Your task to perform on an android device: open sync settings in chrome Image 0: 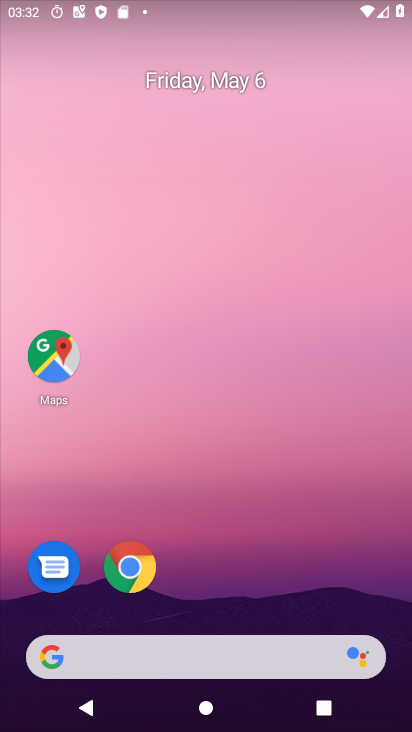
Step 0: click (124, 564)
Your task to perform on an android device: open sync settings in chrome Image 1: 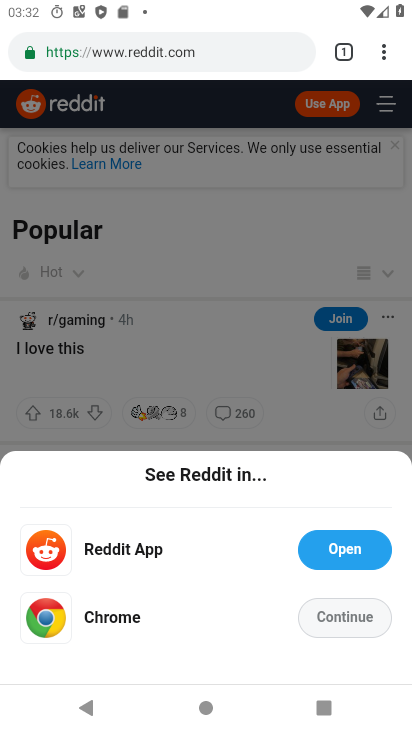
Step 1: click (383, 48)
Your task to perform on an android device: open sync settings in chrome Image 2: 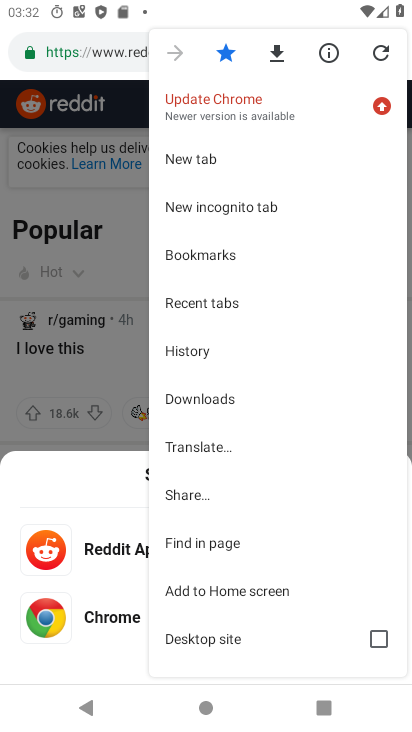
Step 2: drag from (209, 607) to (280, 300)
Your task to perform on an android device: open sync settings in chrome Image 3: 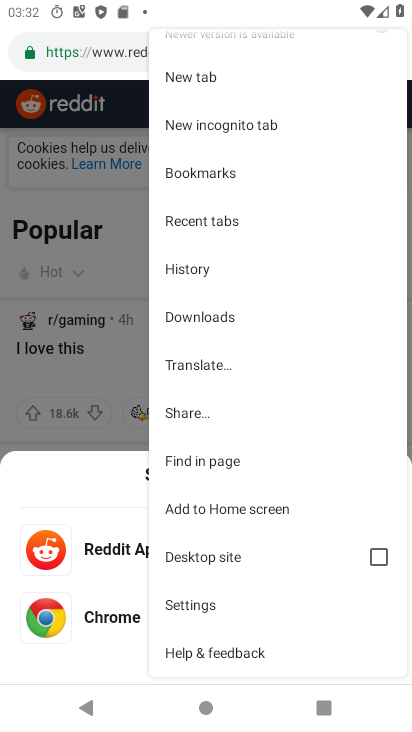
Step 3: click (210, 605)
Your task to perform on an android device: open sync settings in chrome Image 4: 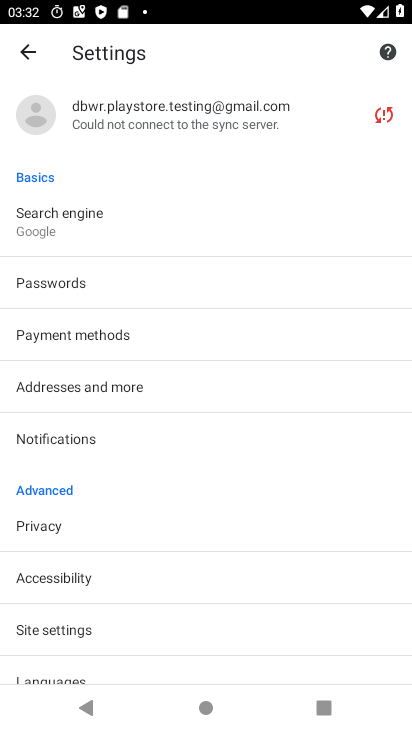
Step 4: click (136, 119)
Your task to perform on an android device: open sync settings in chrome Image 5: 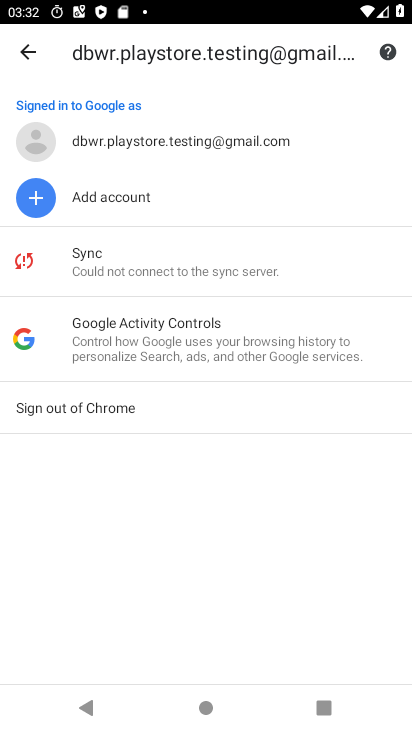
Step 5: task complete